Your task to perform on an android device: Go to Google Image 0: 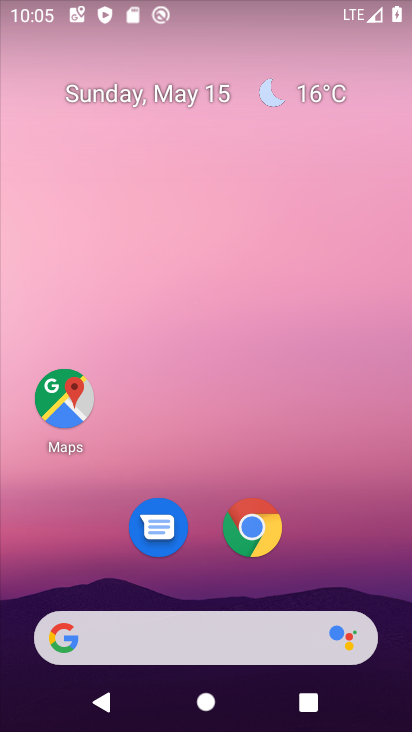
Step 0: drag from (353, 567) to (288, 48)
Your task to perform on an android device: Go to Google Image 1: 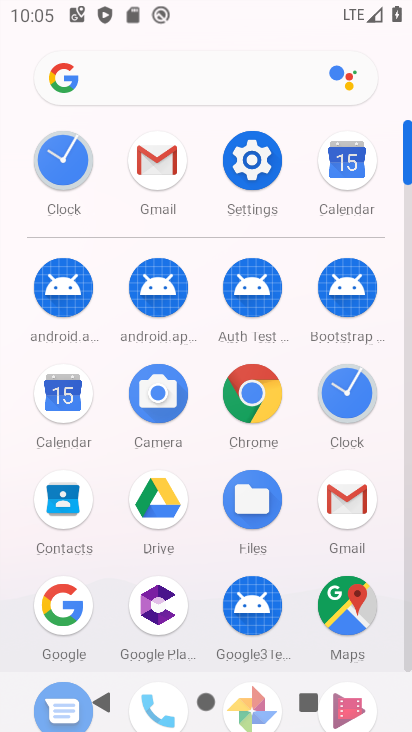
Step 1: click (48, 610)
Your task to perform on an android device: Go to Google Image 2: 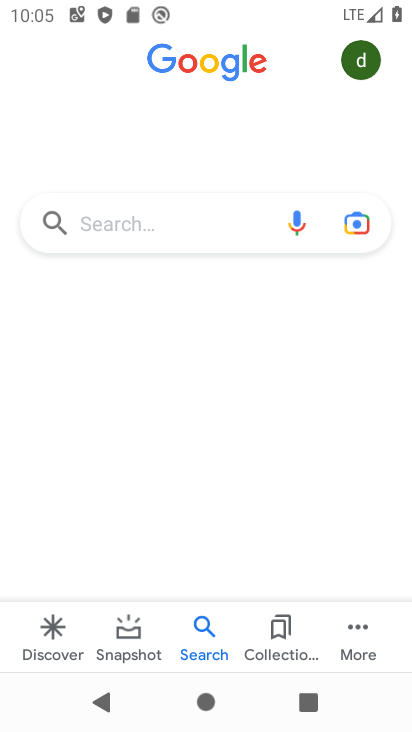
Step 2: task complete